Your task to perform on an android device: Is it going to rain today? Image 0: 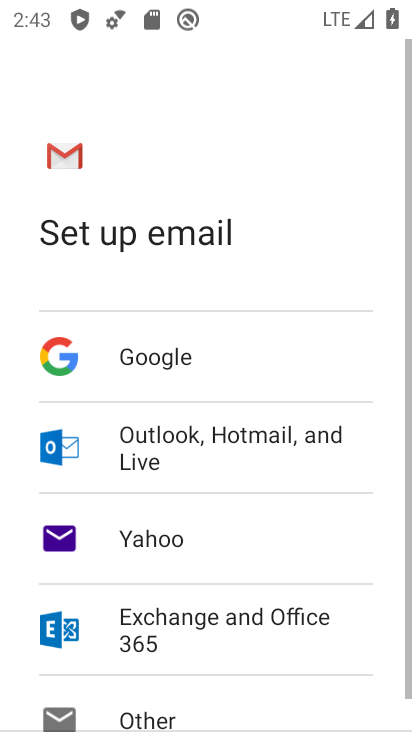
Step 0: press home button
Your task to perform on an android device: Is it going to rain today? Image 1: 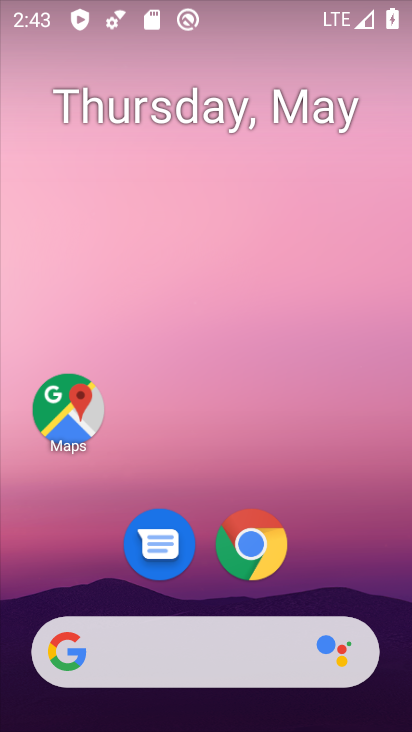
Step 1: click (217, 636)
Your task to perform on an android device: Is it going to rain today? Image 2: 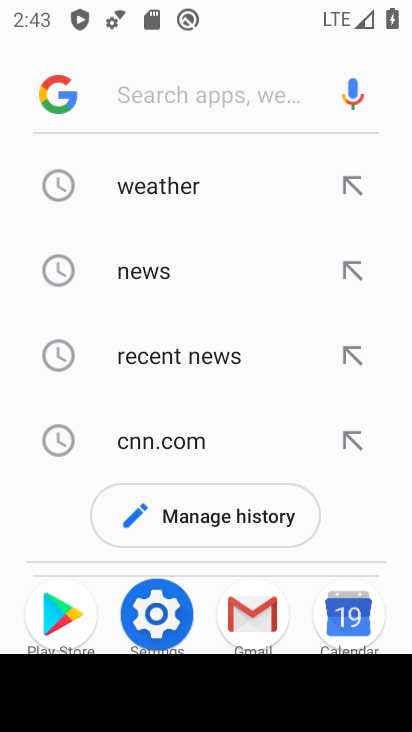
Step 2: type "Is it going to rain today?"
Your task to perform on an android device: Is it going to rain today? Image 3: 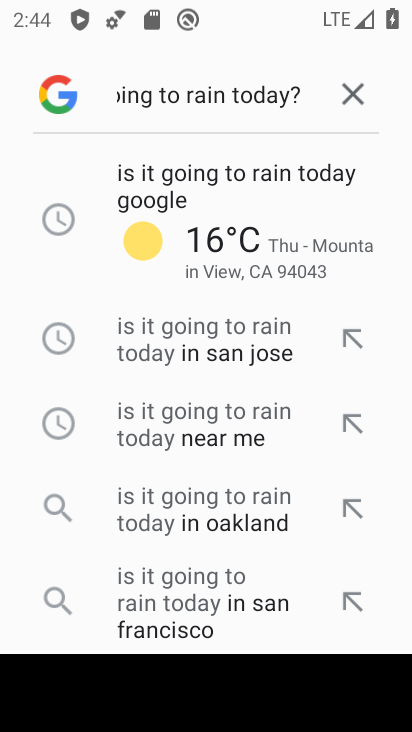
Step 3: click (198, 195)
Your task to perform on an android device: Is it going to rain today? Image 4: 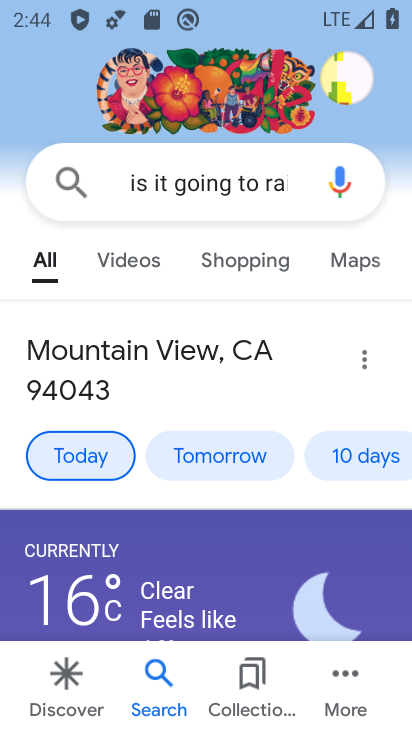
Step 4: task complete